Your task to perform on an android device: Open settings Image 0: 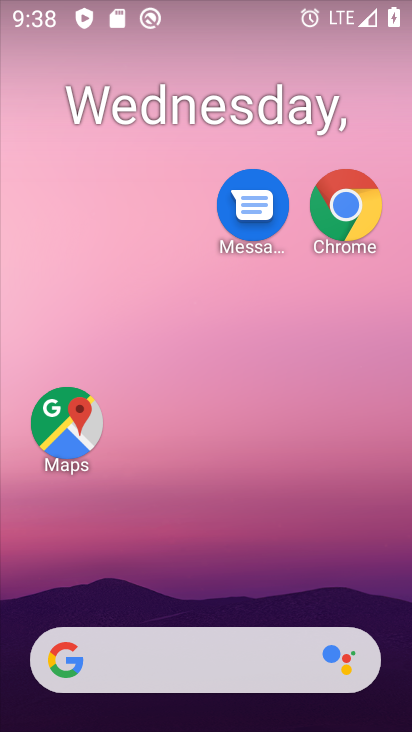
Step 0: drag from (256, 588) to (208, 235)
Your task to perform on an android device: Open settings Image 1: 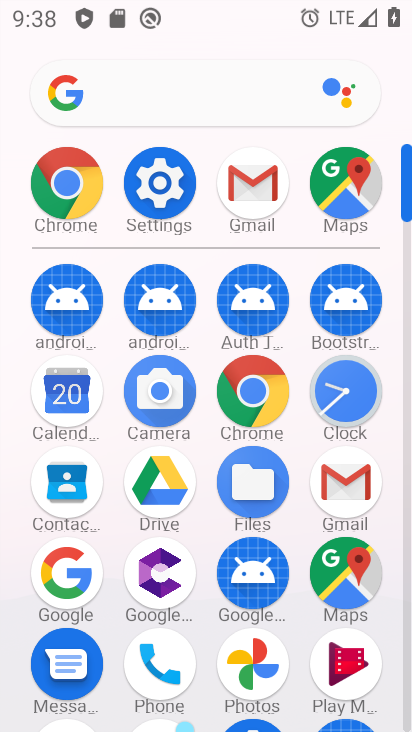
Step 1: click (147, 180)
Your task to perform on an android device: Open settings Image 2: 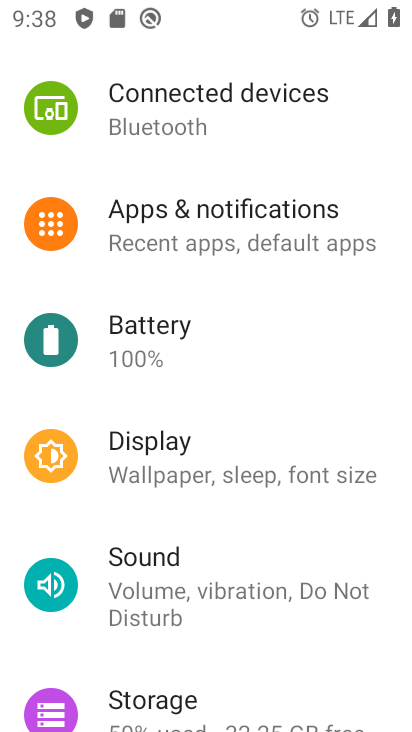
Step 2: task complete